Your task to perform on an android device: set an alarm Image 0: 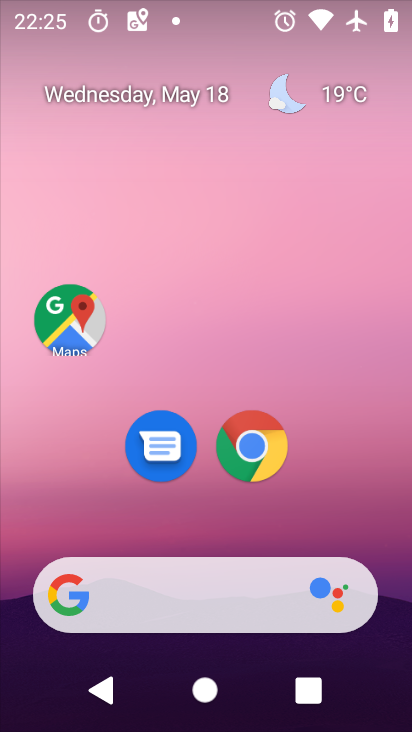
Step 0: press home button
Your task to perform on an android device: set an alarm Image 1: 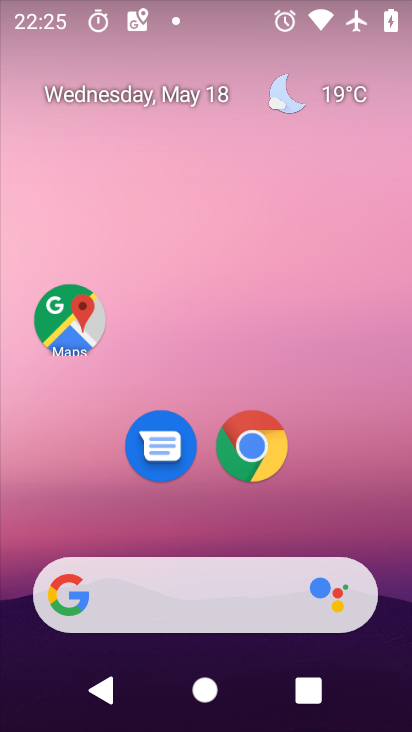
Step 1: drag from (176, 619) to (305, 175)
Your task to perform on an android device: set an alarm Image 2: 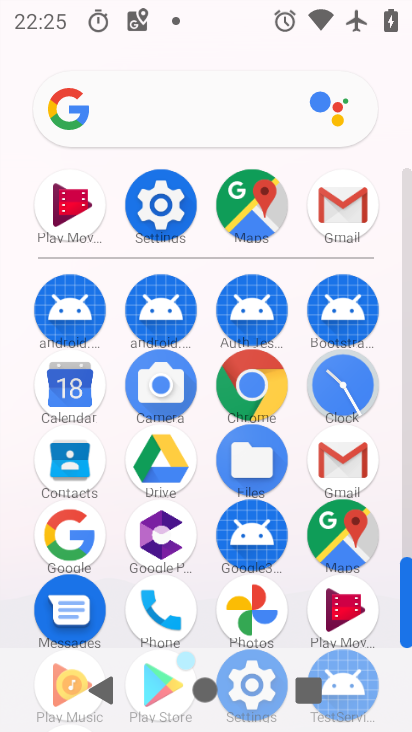
Step 2: click (342, 396)
Your task to perform on an android device: set an alarm Image 3: 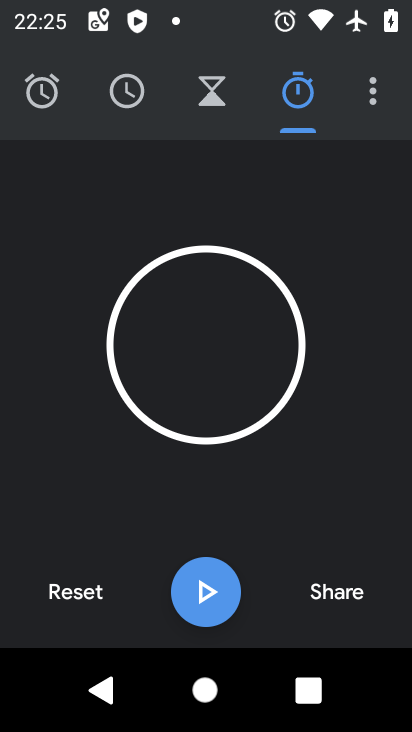
Step 3: click (52, 106)
Your task to perform on an android device: set an alarm Image 4: 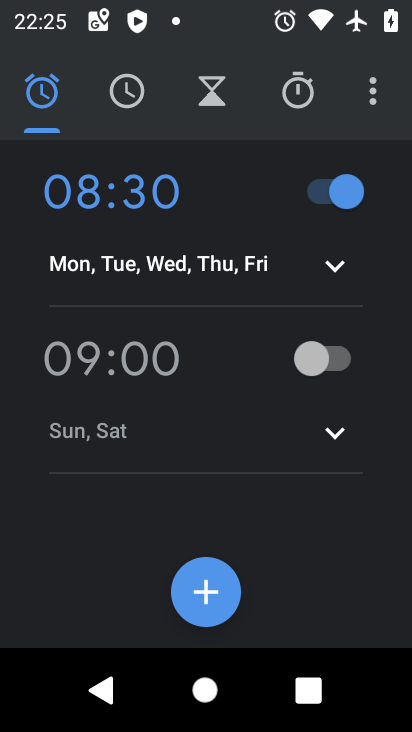
Step 4: click (336, 368)
Your task to perform on an android device: set an alarm Image 5: 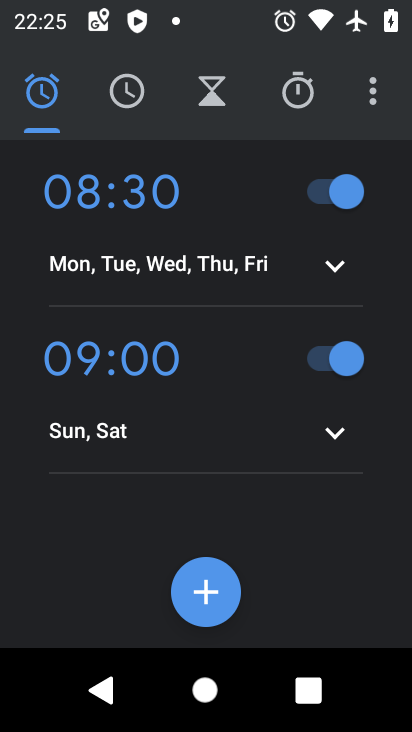
Step 5: task complete